Your task to perform on an android device: set default search engine in the chrome app Image 0: 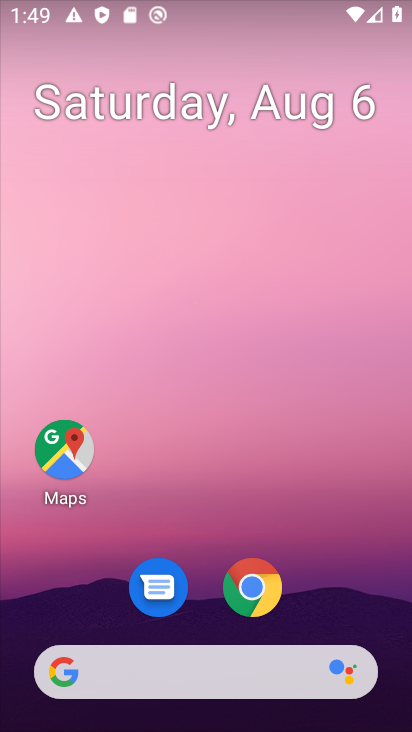
Step 0: click (266, 585)
Your task to perform on an android device: set default search engine in the chrome app Image 1: 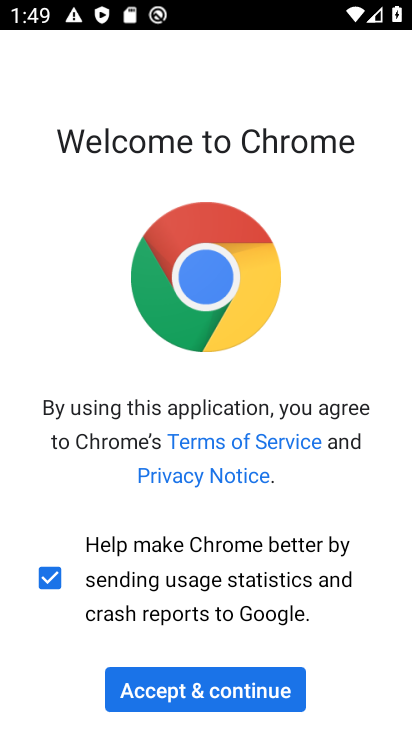
Step 1: press home button
Your task to perform on an android device: set default search engine in the chrome app Image 2: 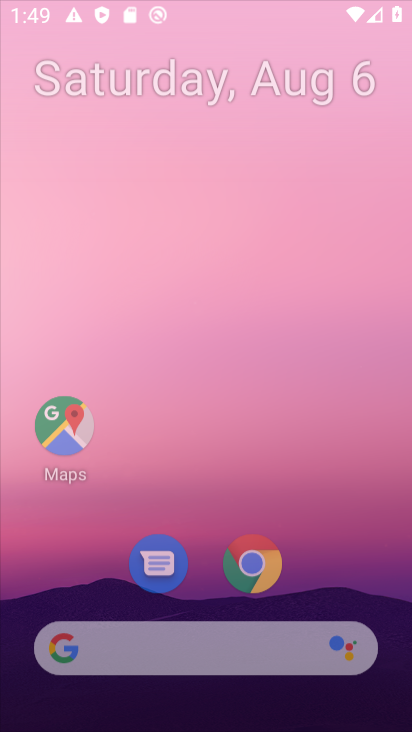
Step 2: click (251, 700)
Your task to perform on an android device: set default search engine in the chrome app Image 3: 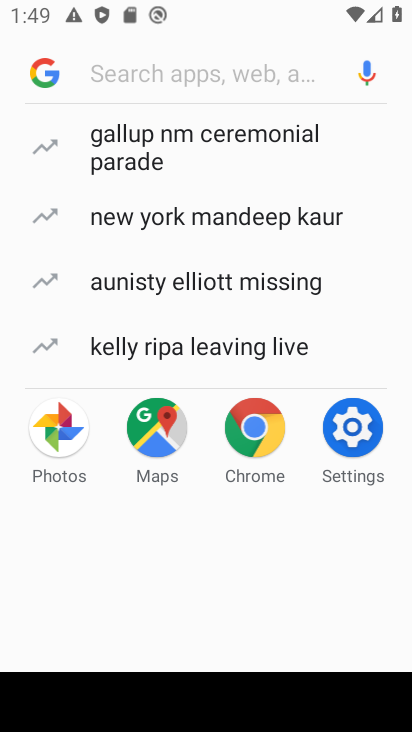
Step 3: click (279, 686)
Your task to perform on an android device: set default search engine in the chrome app Image 4: 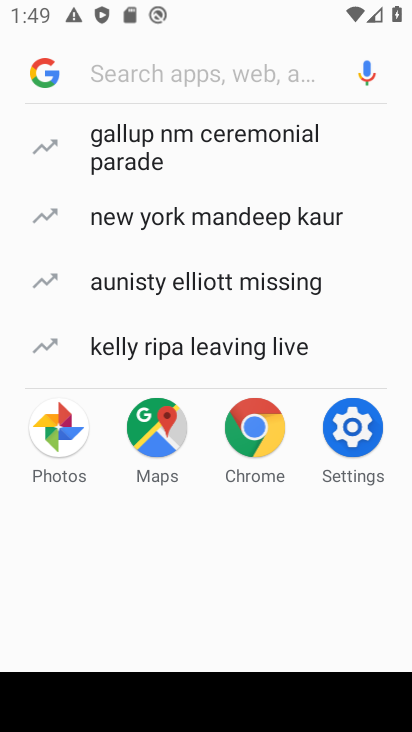
Step 4: press home button
Your task to perform on an android device: set default search engine in the chrome app Image 5: 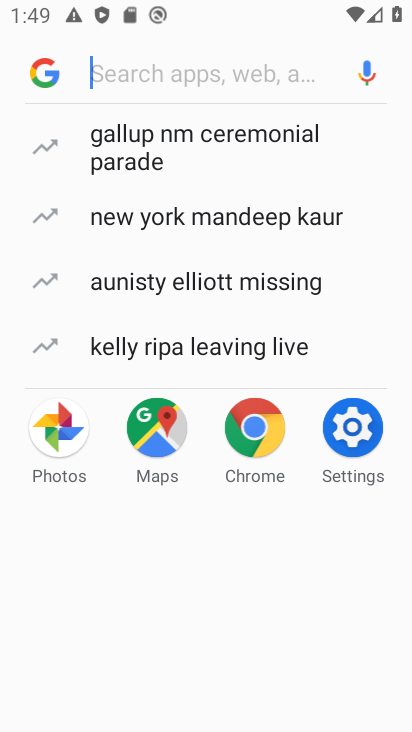
Step 5: press home button
Your task to perform on an android device: set default search engine in the chrome app Image 6: 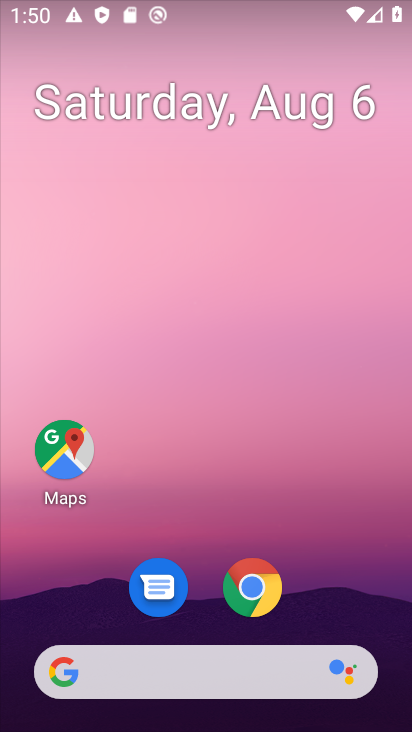
Step 6: click (267, 576)
Your task to perform on an android device: set default search engine in the chrome app Image 7: 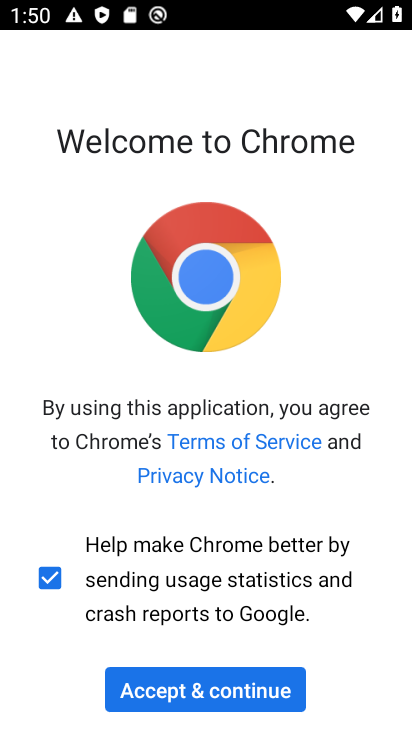
Step 7: click (266, 685)
Your task to perform on an android device: set default search engine in the chrome app Image 8: 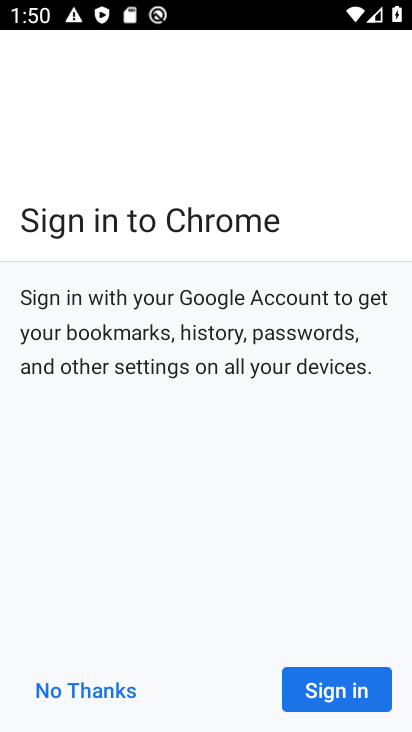
Step 8: click (364, 695)
Your task to perform on an android device: set default search engine in the chrome app Image 9: 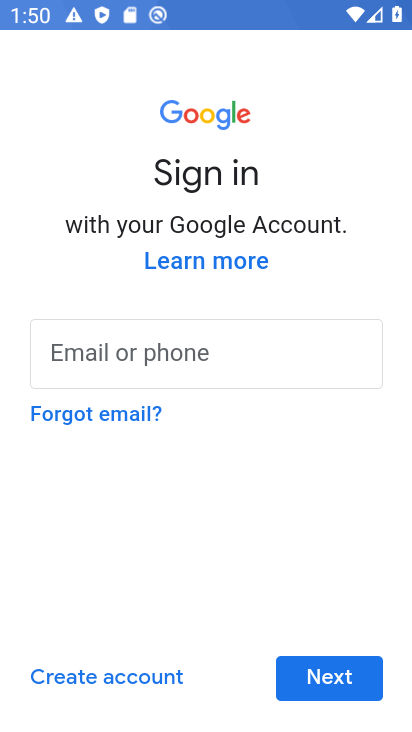
Step 9: task complete